Your task to perform on an android device: open a bookmark in the chrome app Image 0: 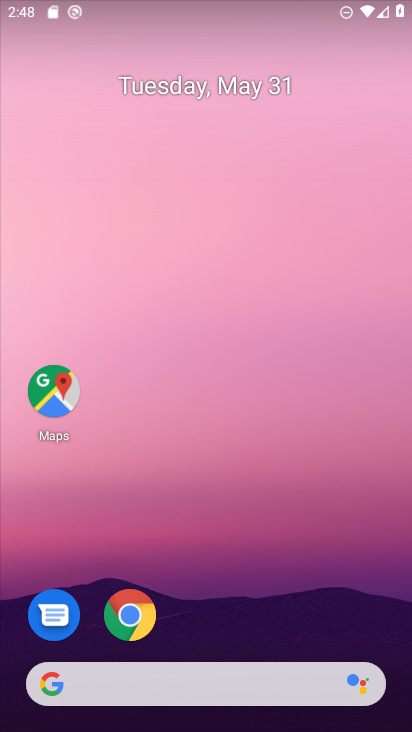
Step 0: drag from (229, 531) to (399, 144)
Your task to perform on an android device: open a bookmark in the chrome app Image 1: 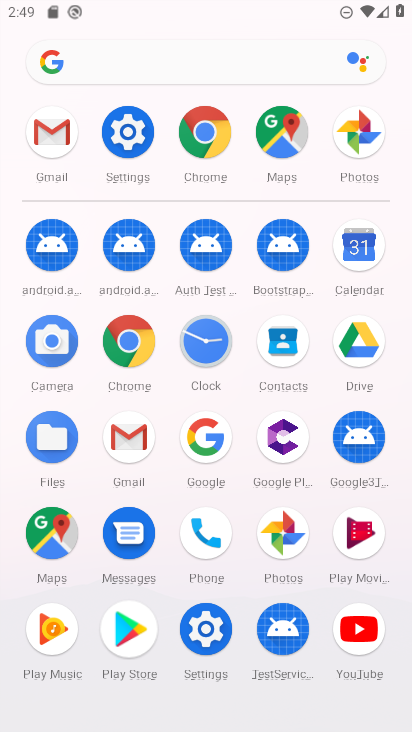
Step 1: click (201, 133)
Your task to perform on an android device: open a bookmark in the chrome app Image 2: 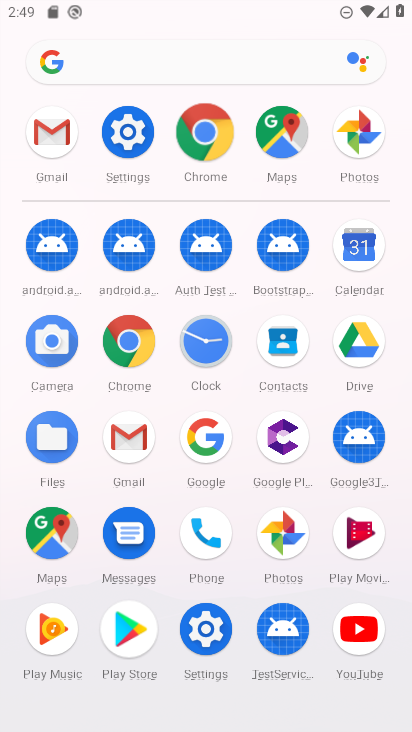
Step 2: click (201, 133)
Your task to perform on an android device: open a bookmark in the chrome app Image 3: 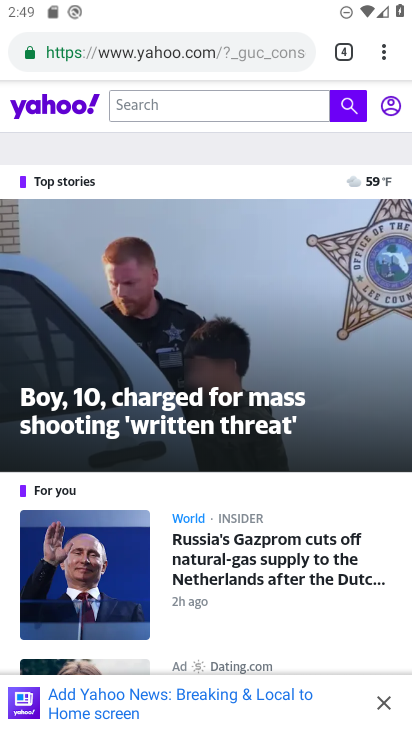
Step 3: drag from (386, 55) to (208, 252)
Your task to perform on an android device: open a bookmark in the chrome app Image 4: 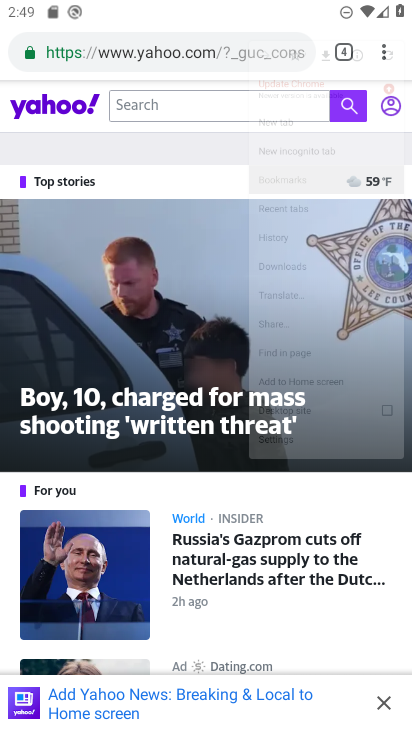
Step 4: click (208, 253)
Your task to perform on an android device: open a bookmark in the chrome app Image 5: 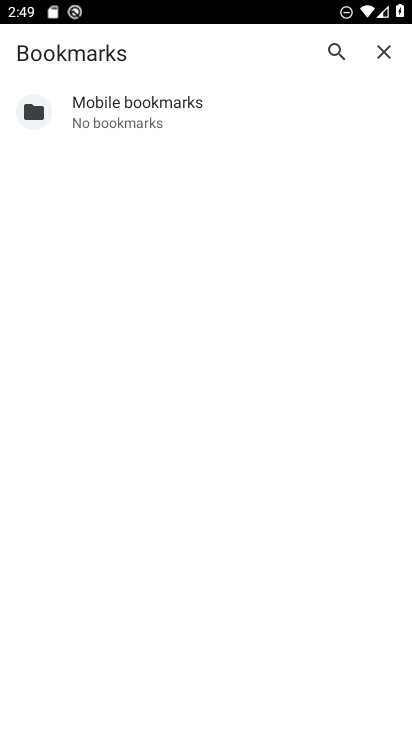
Step 5: task complete